Your task to perform on an android device: toggle show notifications on the lock screen Image 0: 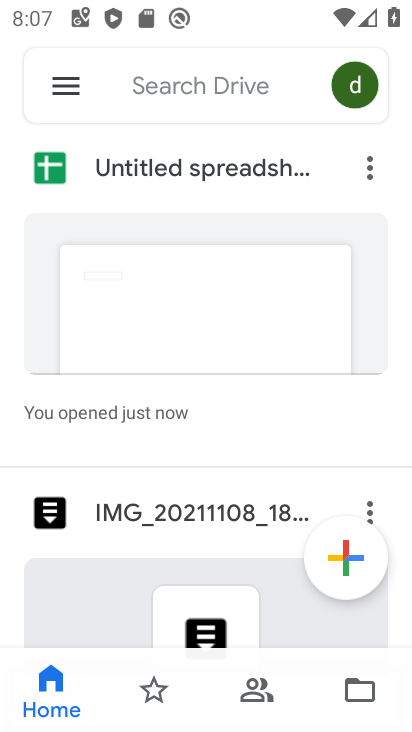
Step 0: press home button
Your task to perform on an android device: toggle show notifications on the lock screen Image 1: 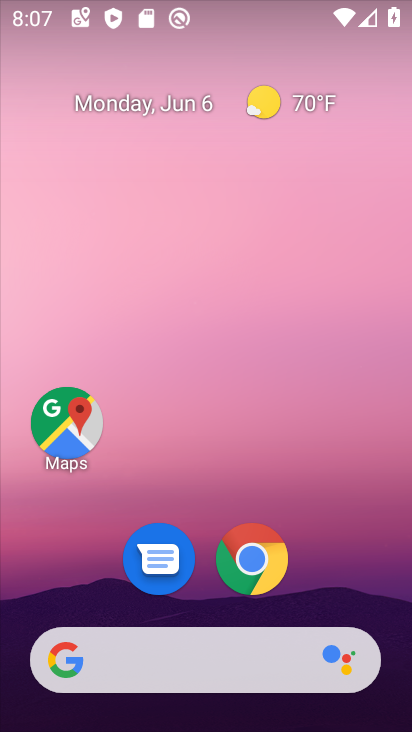
Step 1: drag from (219, 691) to (219, 146)
Your task to perform on an android device: toggle show notifications on the lock screen Image 2: 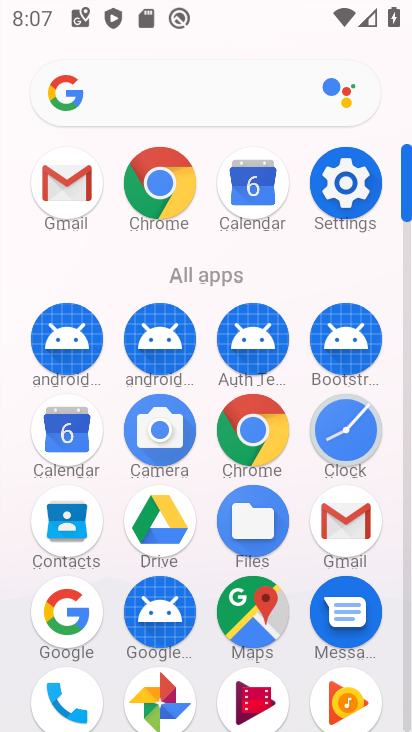
Step 2: click (359, 181)
Your task to perform on an android device: toggle show notifications on the lock screen Image 3: 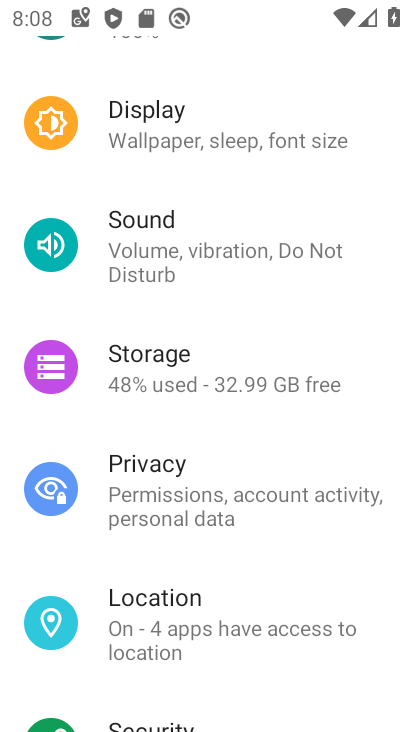
Step 3: drag from (245, 136) to (279, 488)
Your task to perform on an android device: toggle show notifications on the lock screen Image 4: 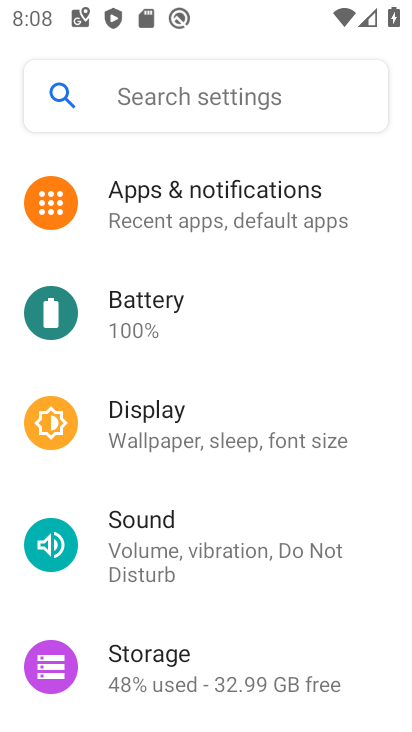
Step 4: click (238, 195)
Your task to perform on an android device: toggle show notifications on the lock screen Image 5: 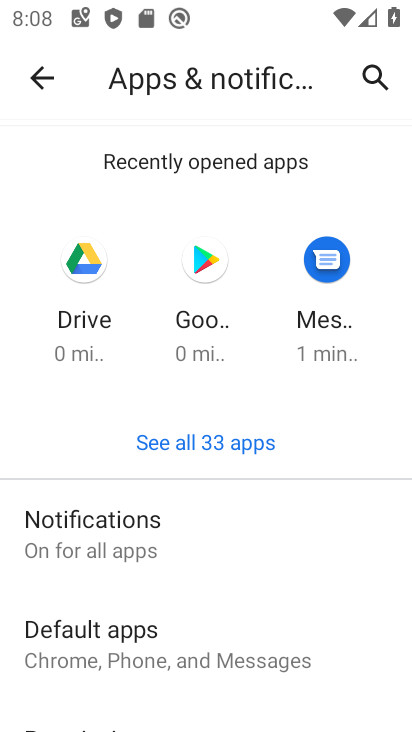
Step 5: click (107, 534)
Your task to perform on an android device: toggle show notifications on the lock screen Image 6: 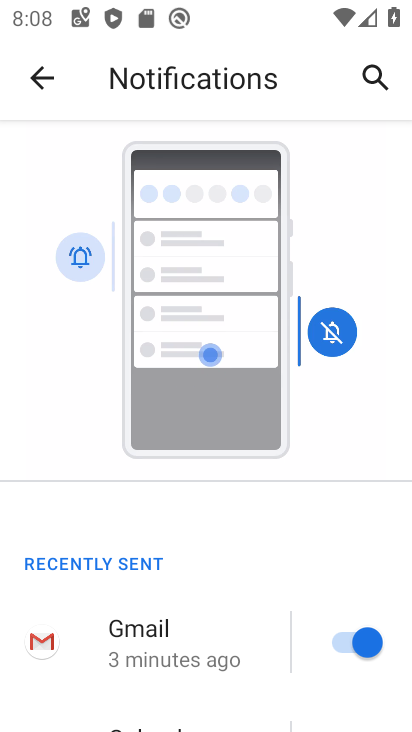
Step 6: drag from (228, 689) to (232, 387)
Your task to perform on an android device: toggle show notifications on the lock screen Image 7: 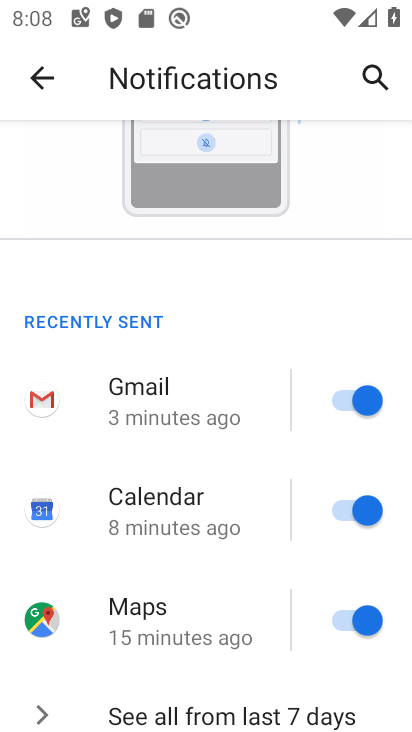
Step 7: drag from (209, 693) to (224, 324)
Your task to perform on an android device: toggle show notifications on the lock screen Image 8: 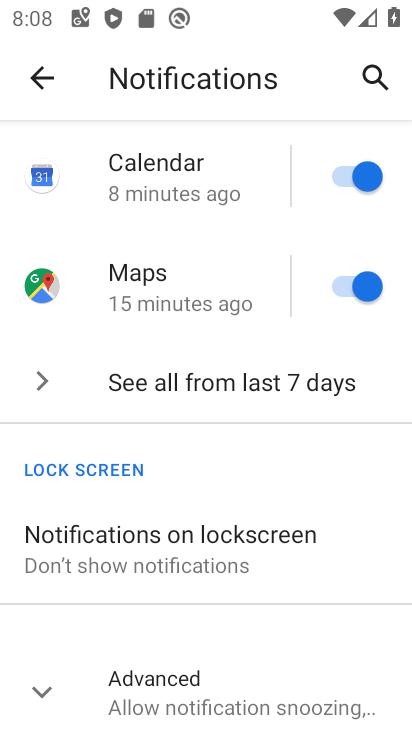
Step 8: click (172, 545)
Your task to perform on an android device: toggle show notifications on the lock screen Image 9: 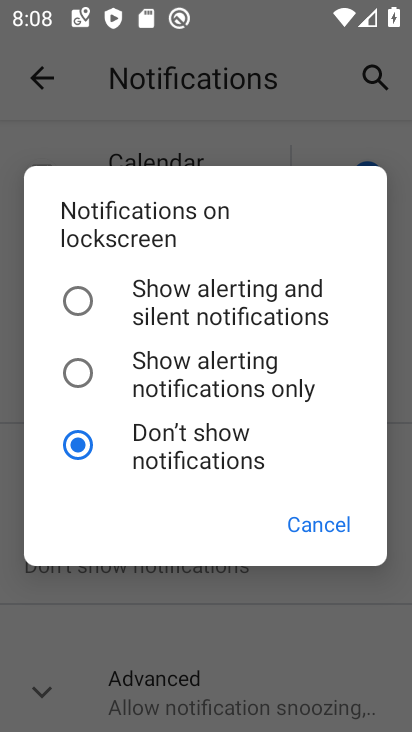
Step 9: click (77, 297)
Your task to perform on an android device: toggle show notifications on the lock screen Image 10: 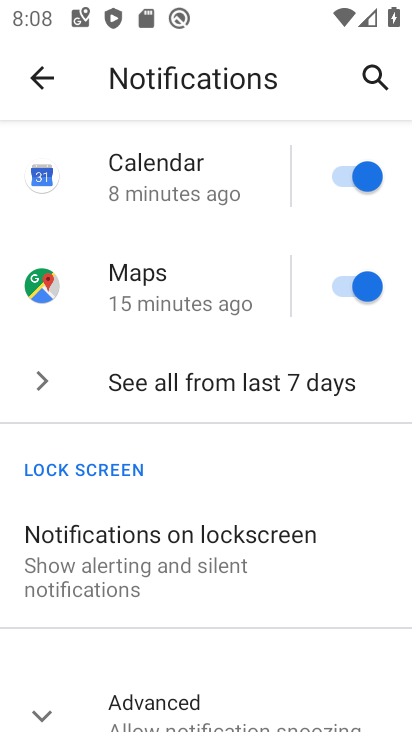
Step 10: task complete